Your task to perform on an android device: turn on wifi Image 0: 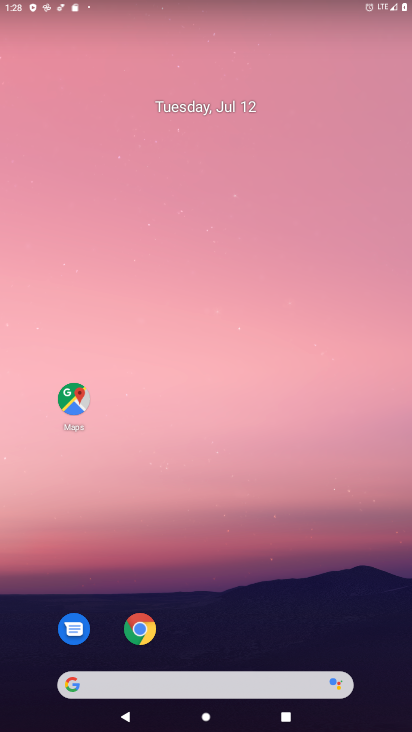
Step 0: drag from (299, 667) to (265, 11)
Your task to perform on an android device: turn on wifi Image 1: 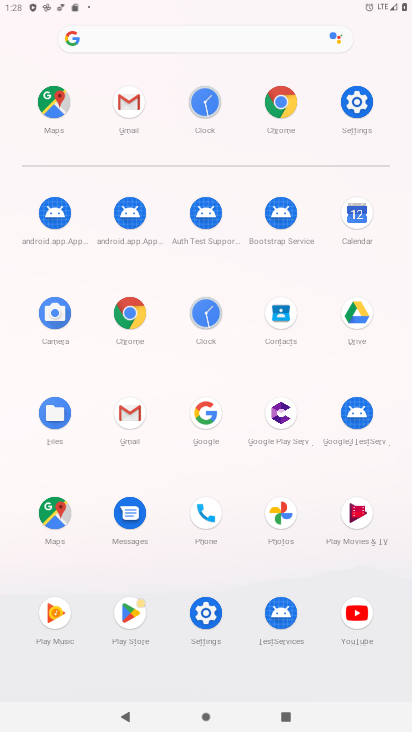
Step 1: click (340, 111)
Your task to perform on an android device: turn on wifi Image 2: 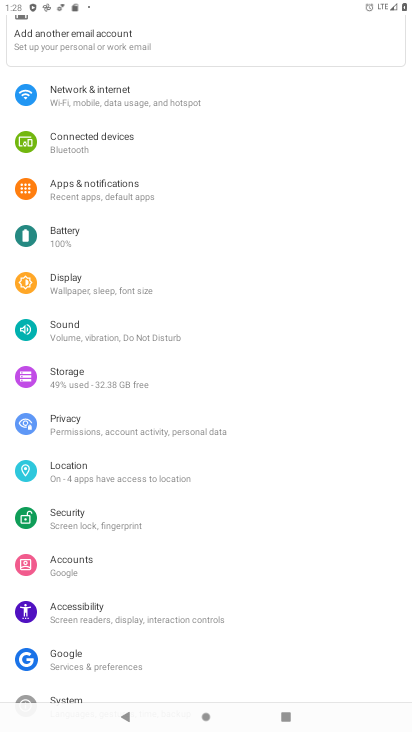
Step 2: click (131, 105)
Your task to perform on an android device: turn on wifi Image 3: 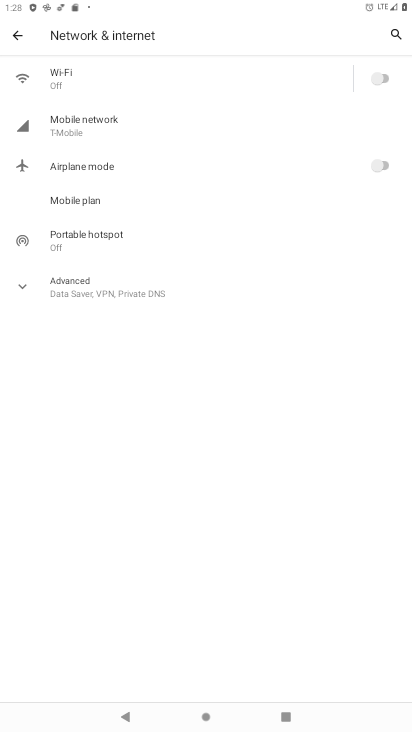
Step 3: click (386, 83)
Your task to perform on an android device: turn on wifi Image 4: 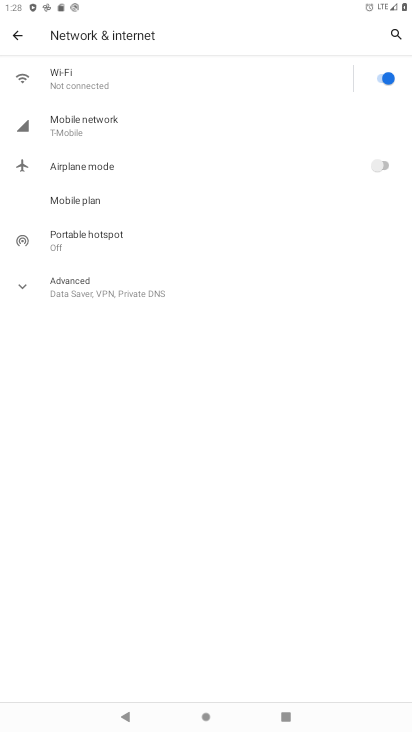
Step 4: task complete